Your task to perform on an android device: check data usage Image 0: 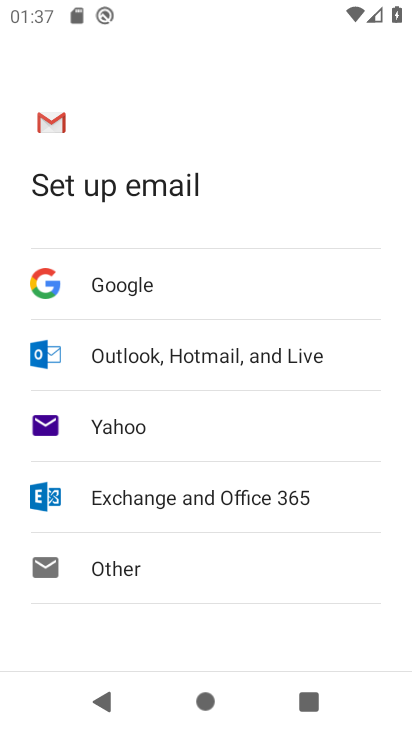
Step 0: press home button
Your task to perform on an android device: check data usage Image 1: 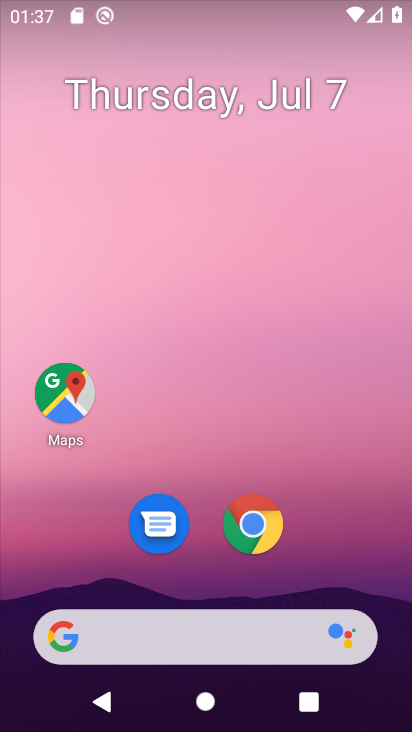
Step 1: drag from (313, 529) to (282, 56)
Your task to perform on an android device: check data usage Image 2: 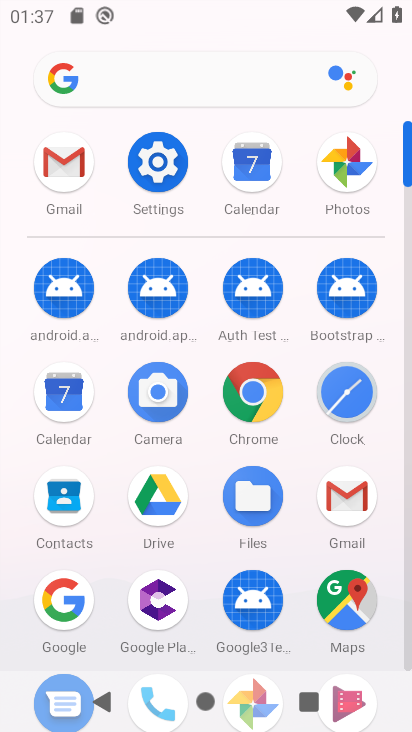
Step 2: click (159, 166)
Your task to perform on an android device: check data usage Image 3: 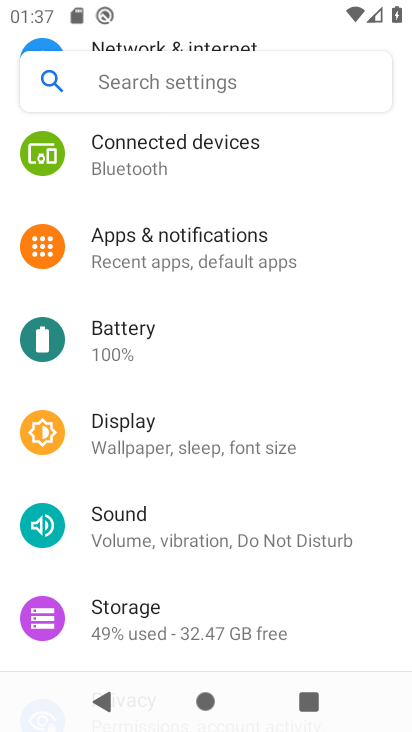
Step 3: drag from (227, 310) to (251, 655)
Your task to perform on an android device: check data usage Image 4: 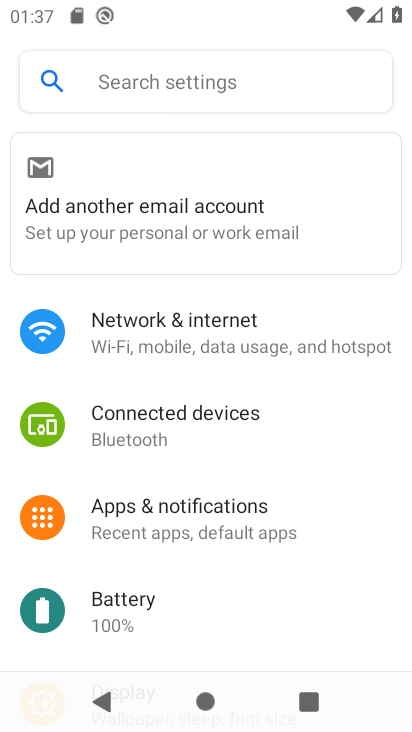
Step 4: click (248, 345)
Your task to perform on an android device: check data usage Image 5: 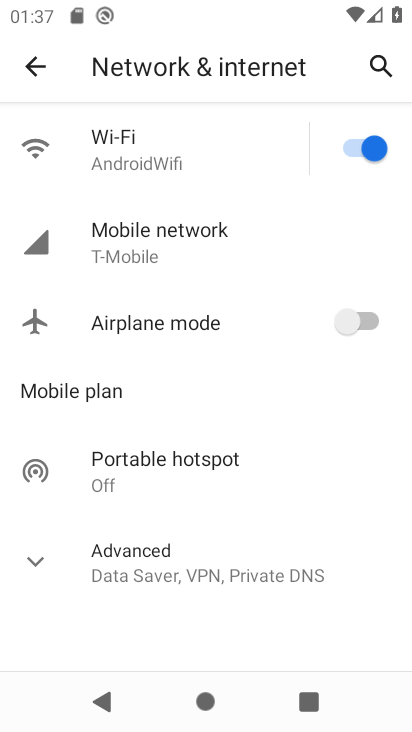
Step 5: click (182, 246)
Your task to perform on an android device: check data usage Image 6: 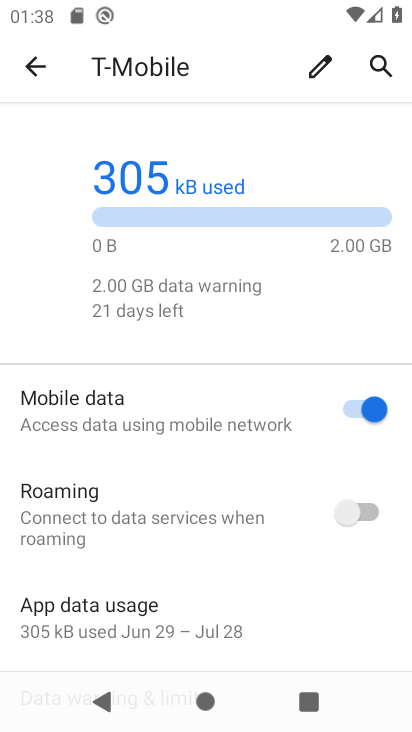
Step 6: task complete